Your task to perform on an android device: Open Youtube and go to "Your channel" Image 0: 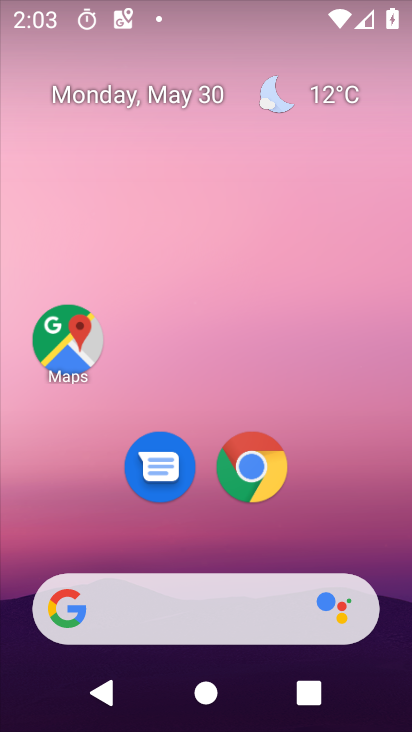
Step 0: drag from (389, 699) to (377, 330)
Your task to perform on an android device: Open Youtube and go to "Your channel" Image 1: 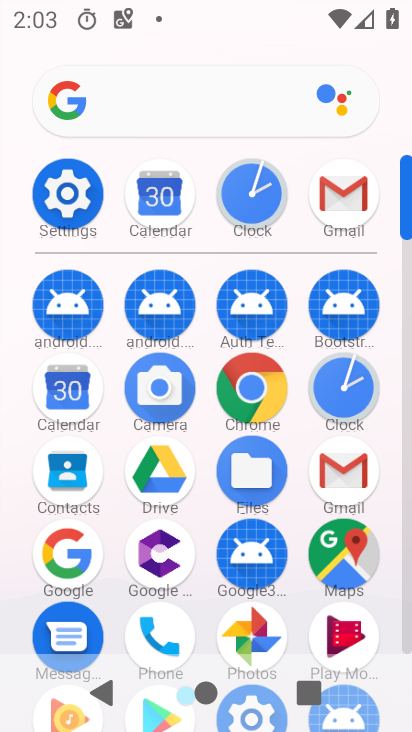
Step 1: drag from (295, 663) to (284, 325)
Your task to perform on an android device: Open Youtube and go to "Your channel" Image 2: 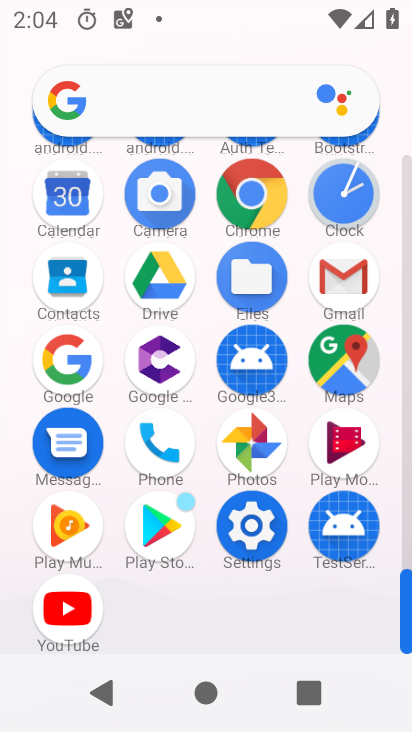
Step 2: click (77, 603)
Your task to perform on an android device: Open Youtube and go to "Your channel" Image 3: 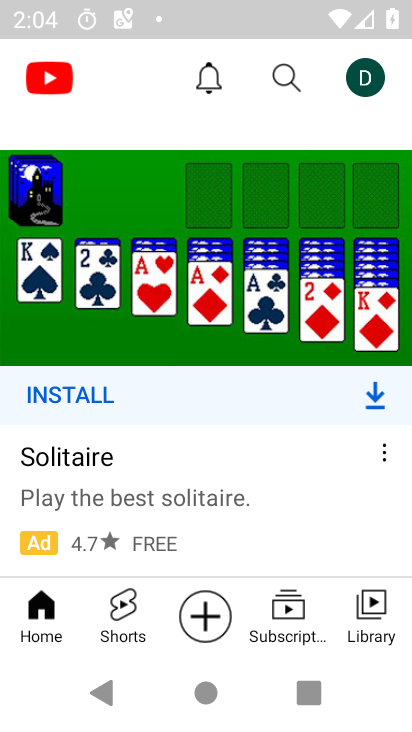
Step 3: click (357, 72)
Your task to perform on an android device: Open Youtube and go to "Your channel" Image 4: 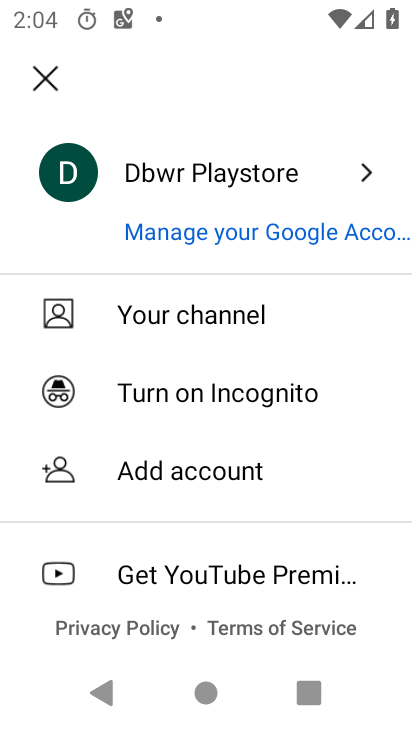
Step 4: drag from (374, 642) to (351, 327)
Your task to perform on an android device: Open Youtube and go to "Your channel" Image 5: 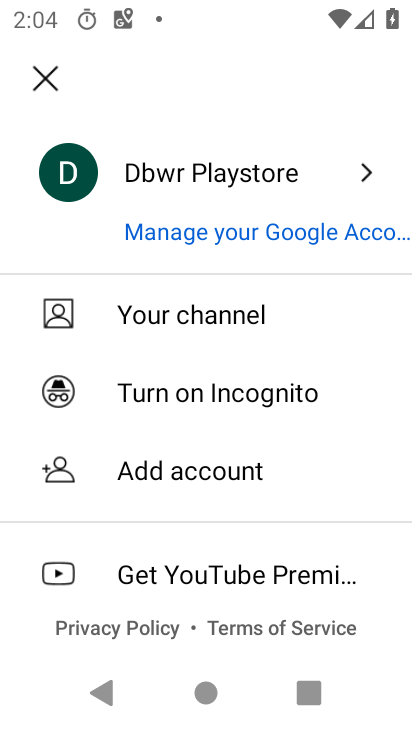
Step 5: click (169, 306)
Your task to perform on an android device: Open Youtube and go to "Your channel" Image 6: 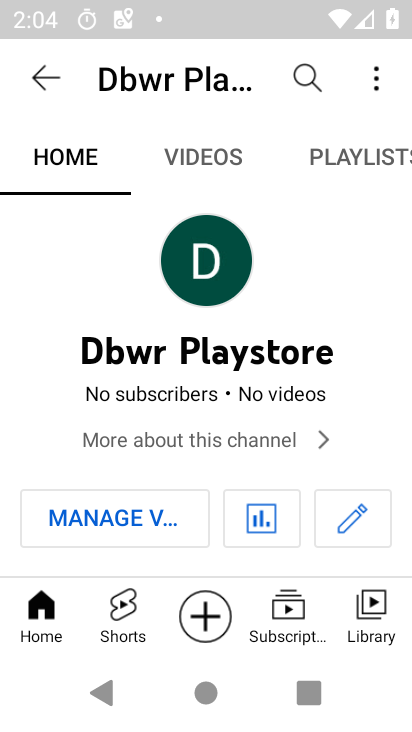
Step 6: task complete